Your task to perform on an android device: Open settings on Google Maps Image 0: 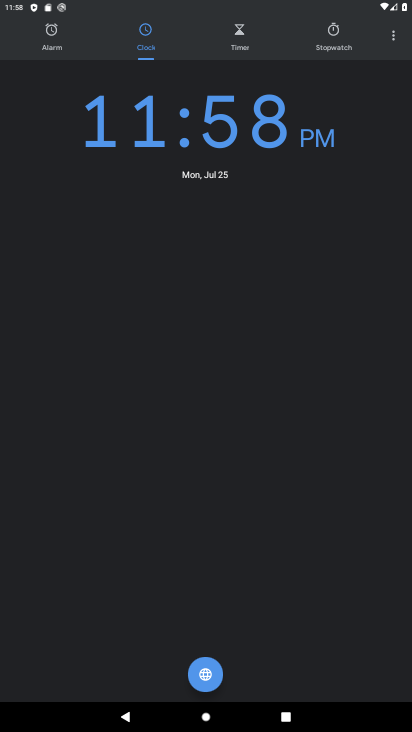
Step 0: press back button
Your task to perform on an android device: Open settings on Google Maps Image 1: 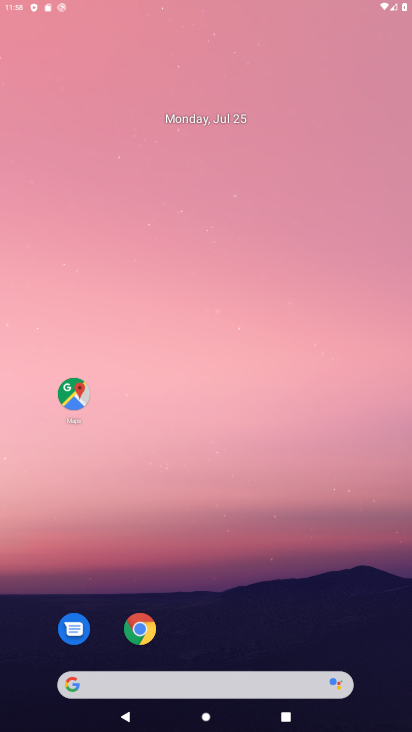
Step 1: press back button
Your task to perform on an android device: Open settings on Google Maps Image 2: 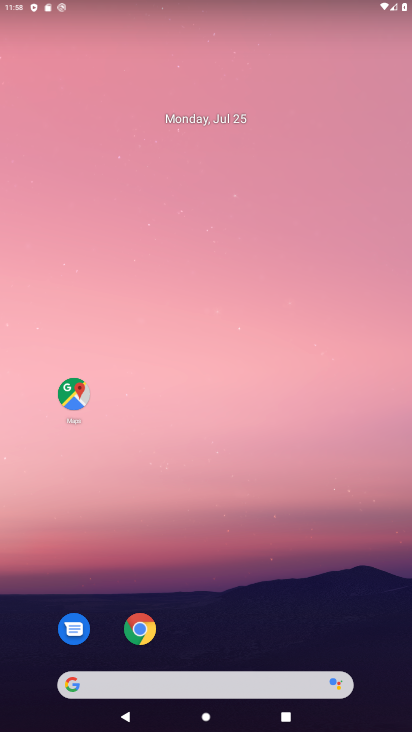
Step 2: drag from (208, 630) to (208, 90)
Your task to perform on an android device: Open settings on Google Maps Image 3: 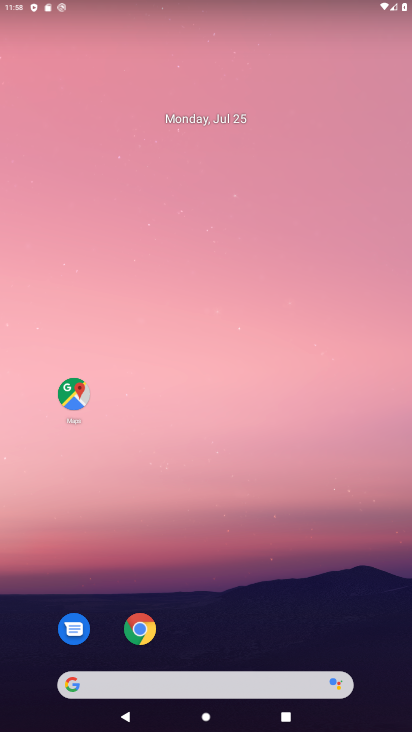
Step 3: drag from (222, 477) to (217, 239)
Your task to perform on an android device: Open settings on Google Maps Image 4: 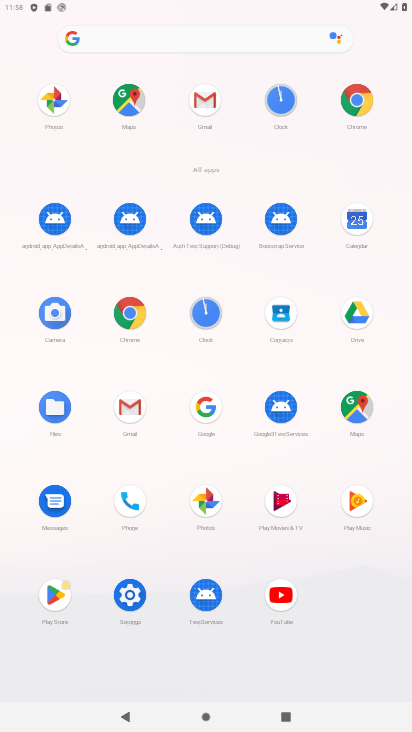
Step 4: click (351, 401)
Your task to perform on an android device: Open settings on Google Maps Image 5: 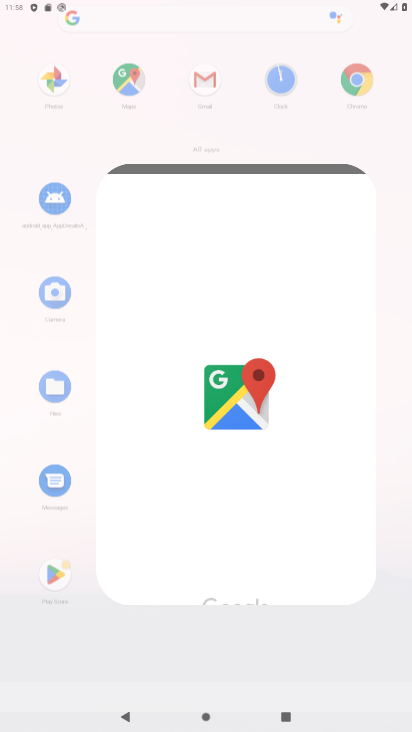
Step 5: click (351, 403)
Your task to perform on an android device: Open settings on Google Maps Image 6: 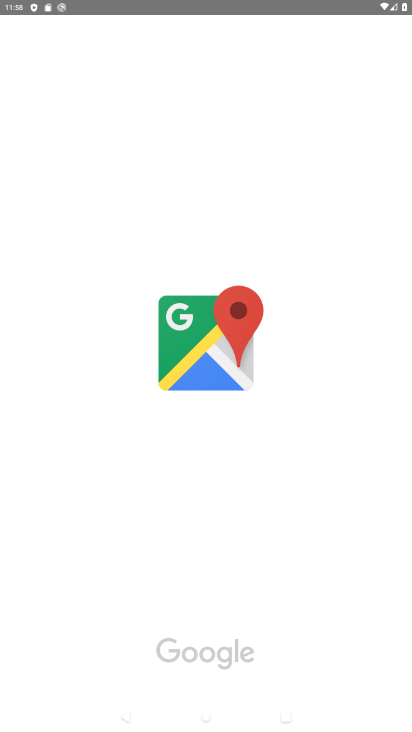
Step 6: click (351, 403)
Your task to perform on an android device: Open settings on Google Maps Image 7: 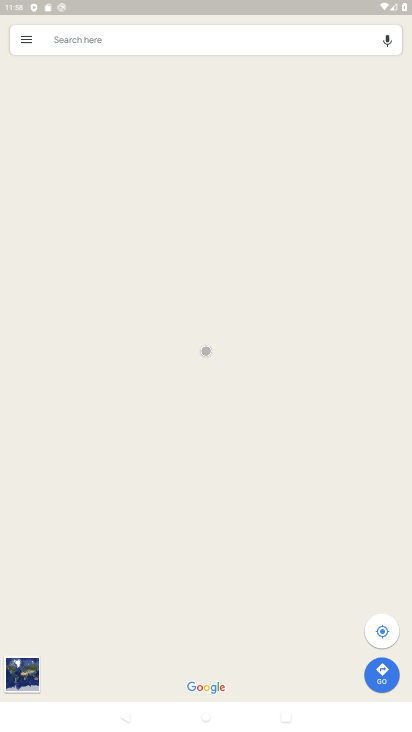
Step 7: click (21, 40)
Your task to perform on an android device: Open settings on Google Maps Image 8: 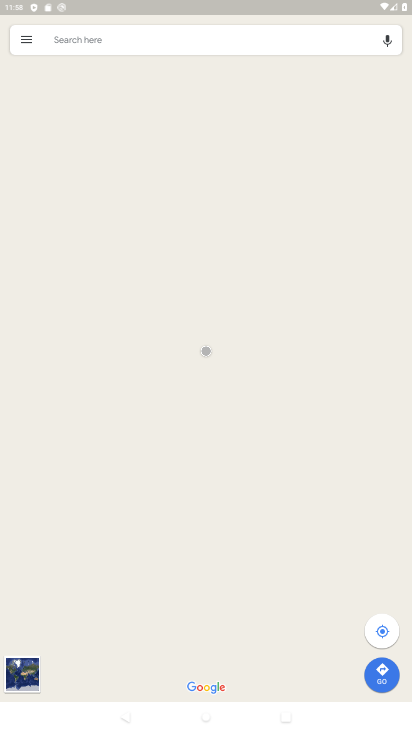
Step 8: click (22, 41)
Your task to perform on an android device: Open settings on Google Maps Image 9: 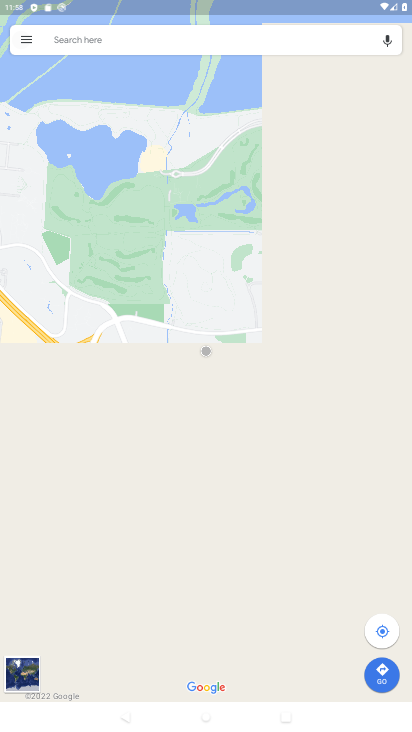
Step 9: click (22, 41)
Your task to perform on an android device: Open settings on Google Maps Image 10: 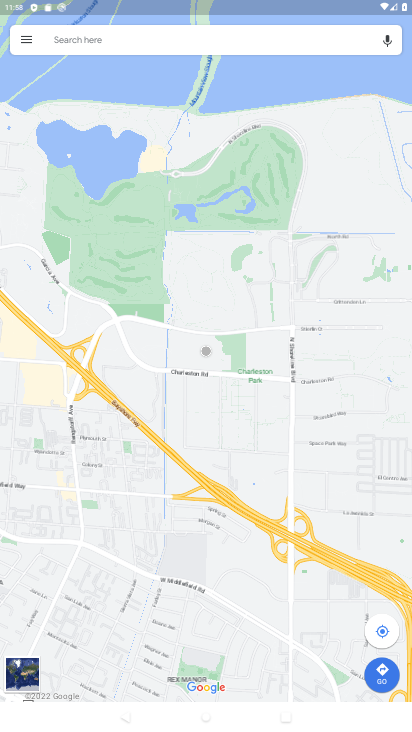
Step 10: click (29, 37)
Your task to perform on an android device: Open settings on Google Maps Image 11: 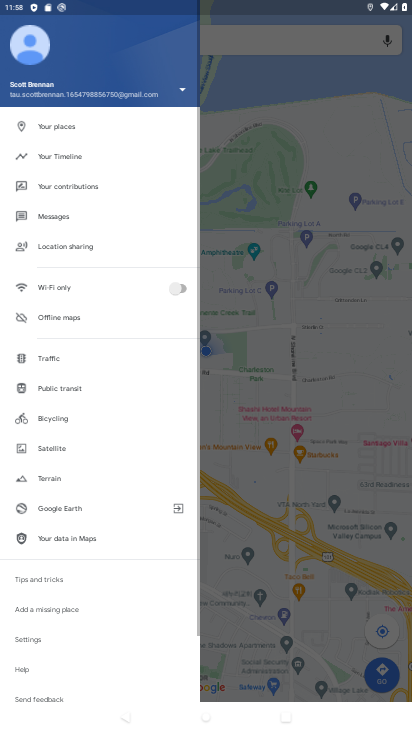
Step 11: click (54, 154)
Your task to perform on an android device: Open settings on Google Maps Image 12: 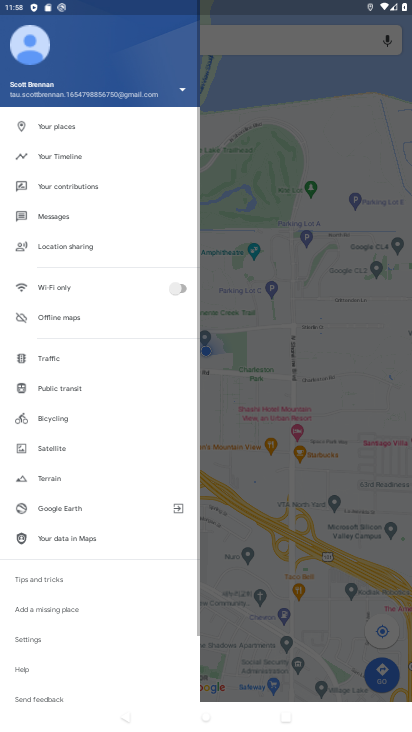
Step 12: click (54, 154)
Your task to perform on an android device: Open settings on Google Maps Image 13: 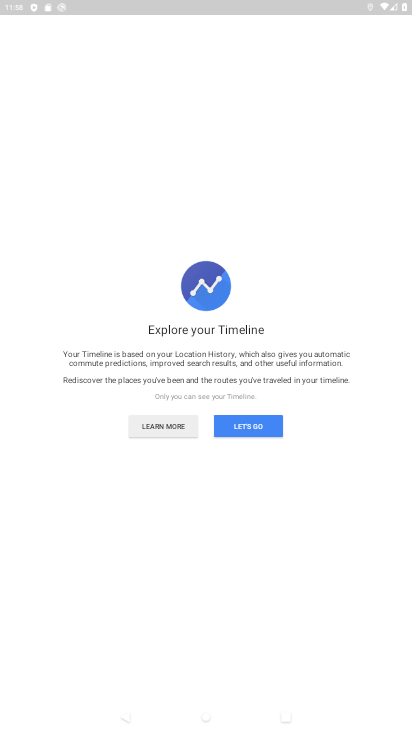
Step 13: click (251, 420)
Your task to perform on an android device: Open settings on Google Maps Image 14: 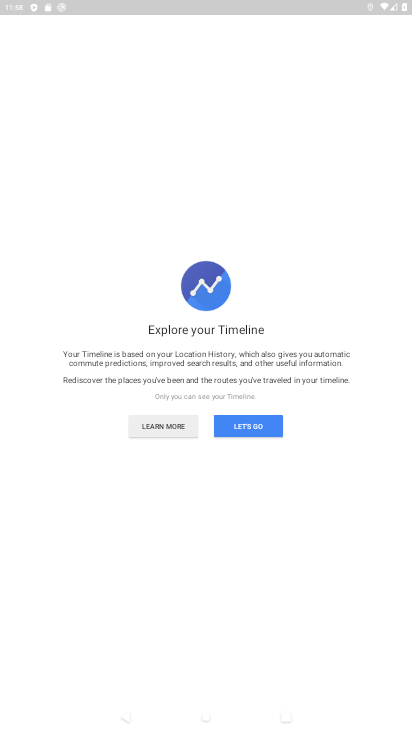
Step 14: click (251, 420)
Your task to perform on an android device: Open settings on Google Maps Image 15: 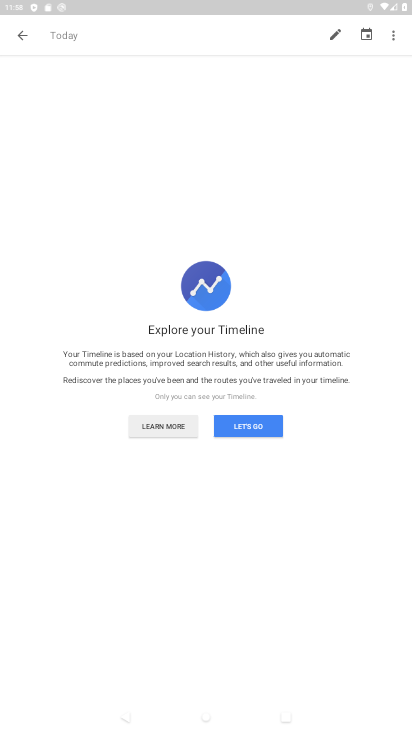
Step 15: task complete